Your task to perform on an android device: Open Maps and search for coffee Image 0: 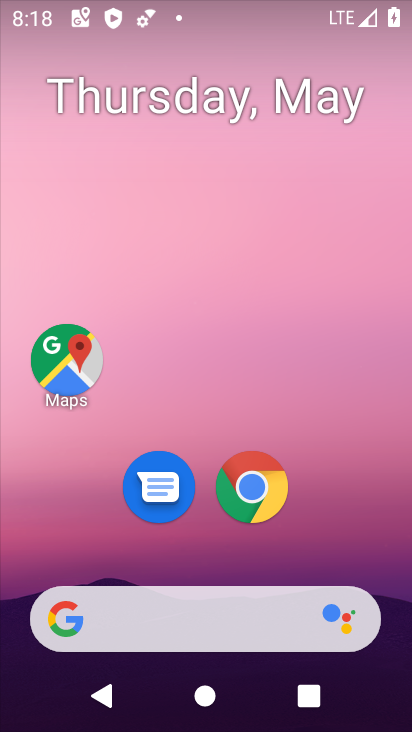
Step 0: click (401, 398)
Your task to perform on an android device: Open Maps and search for coffee Image 1: 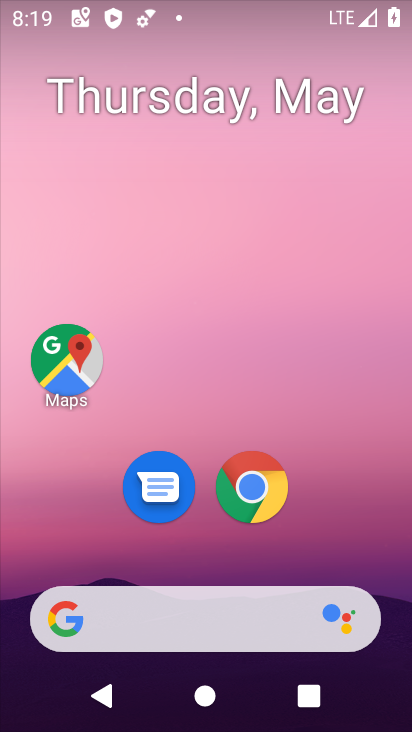
Step 1: drag from (218, 555) to (267, 200)
Your task to perform on an android device: Open Maps and search for coffee Image 2: 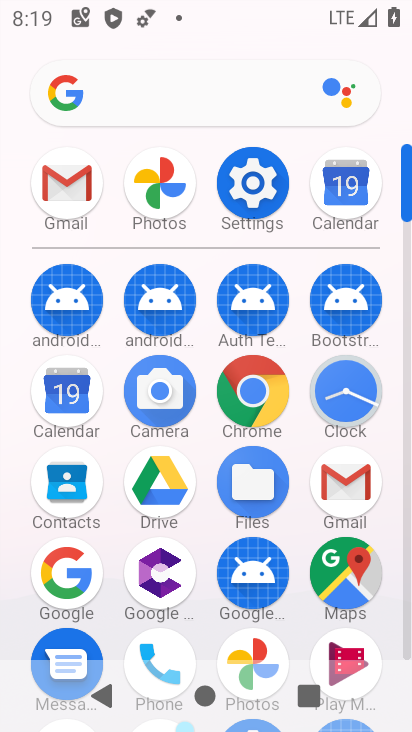
Step 2: click (343, 569)
Your task to perform on an android device: Open Maps and search for coffee Image 3: 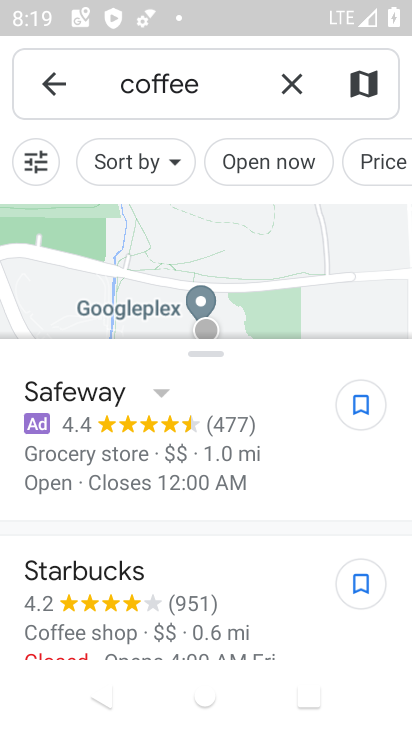
Step 3: task complete